Your task to perform on an android device: Open Yahoo.com Image 0: 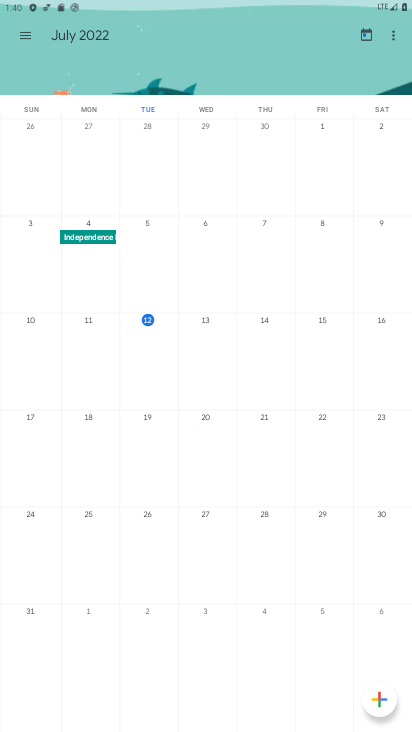
Step 0: task complete